Your task to perform on an android device: change the clock display to analog Image 0: 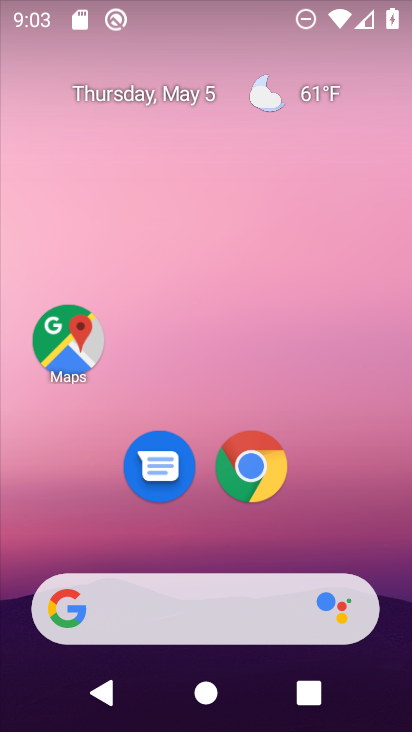
Step 0: drag from (209, 638) to (228, 291)
Your task to perform on an android device: change the clock display to analog Image 1: 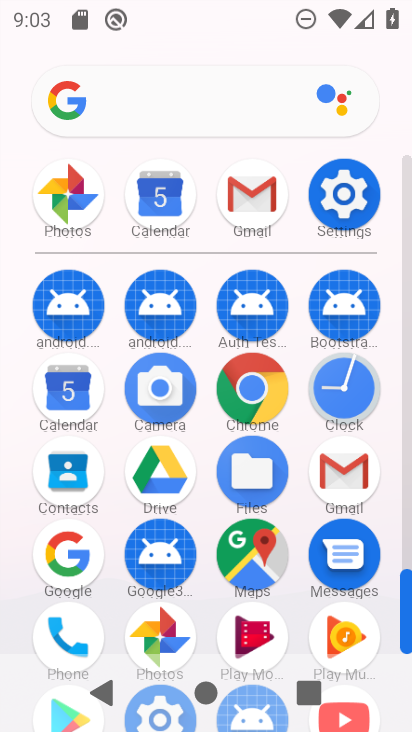
Step 1: click (338, 402)
Your task to perform on an android device: change the clock display to analog Image 2: 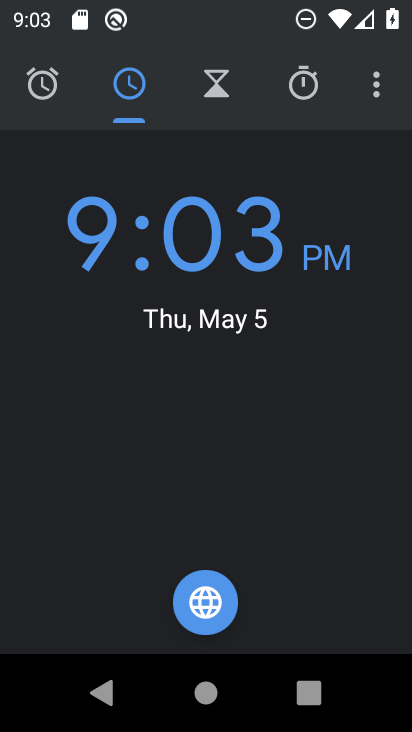
Step 2: click (381, 106)
Your task to perform on an android device: change the clock display to analog Image 3: 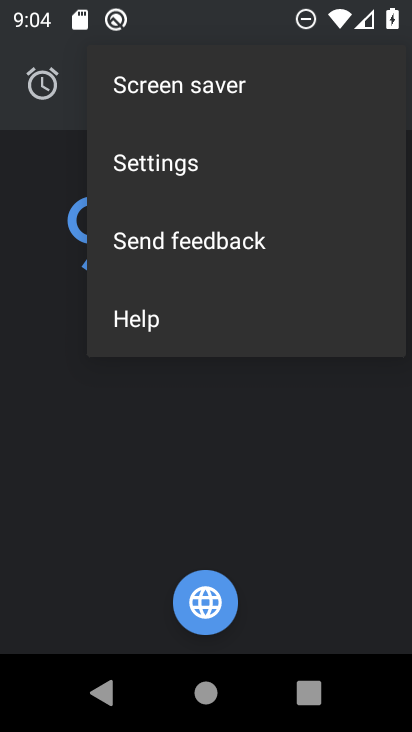
Step 3: click (170, 177)
Your task to perform on an android device: change the clock display to analog Image 4: 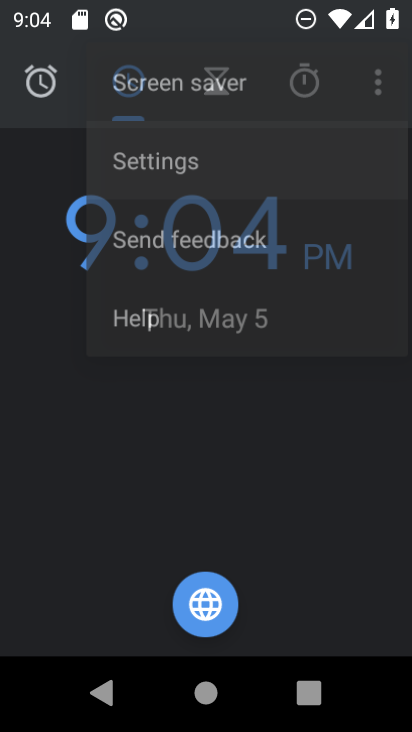
Step 4: click (170, 177)
Your task to perform on an android device: change the clock display to analog Image 5: 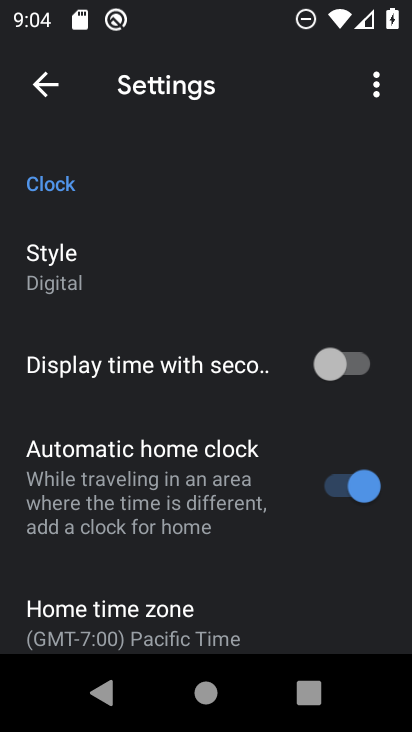
Step 5: click (248, 274)
Your task to perform on an android device: change the clock display to analog Image 6: 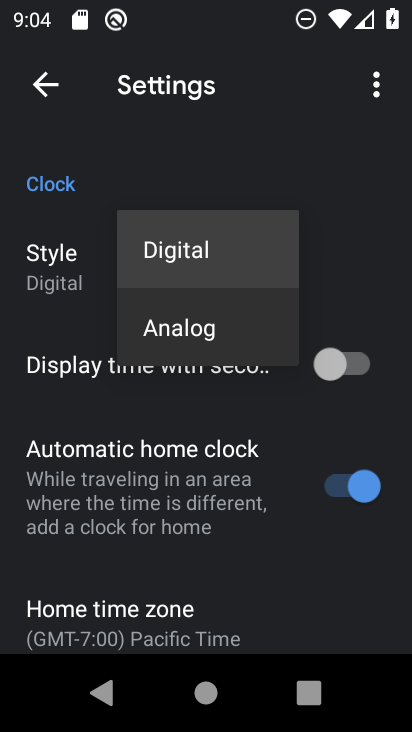
Step 6: click (177, 326)
Your task to perform on an android device: change the clock display to analog Image 7: 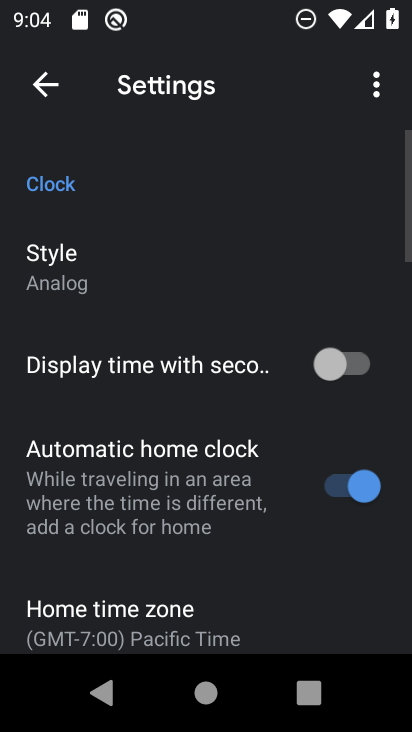
Step 7: task complete